Your task to perform on an android device: turn on wifi Image 0: 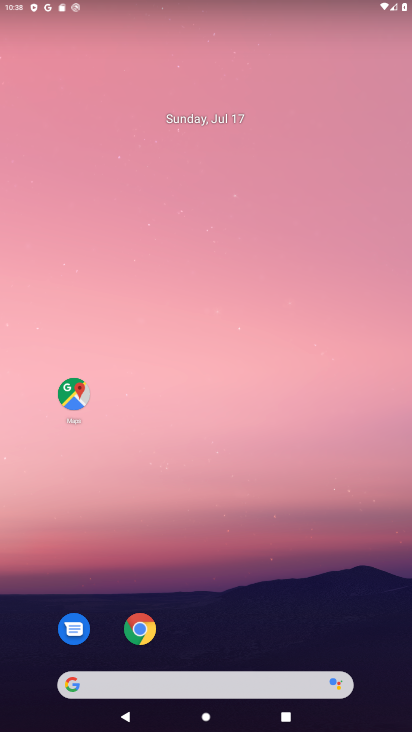
Step 0: drag from (235, 670) to (311, 193)
Your task to perform on an android device: turn on wifi Image 1: 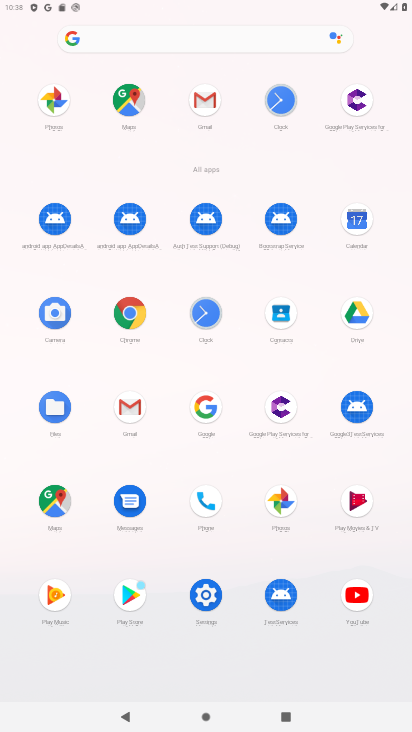
Step 1: click (195, 596)
Your task to perform on an android device: turn on wifi Image 2: 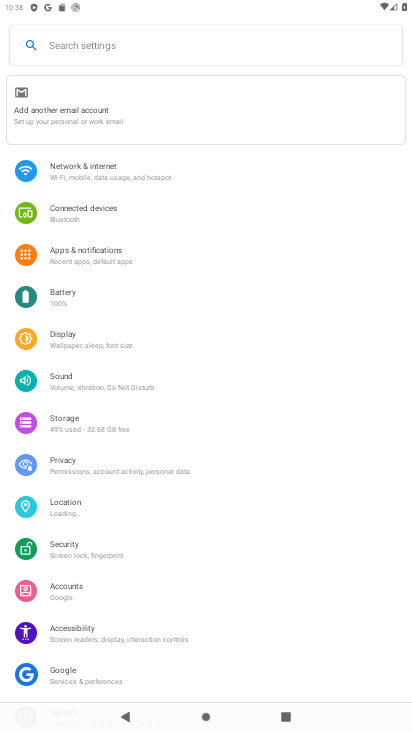
Step 2: click (86, 175)
Your task to perform on an android device: turn on wifi Image 3: 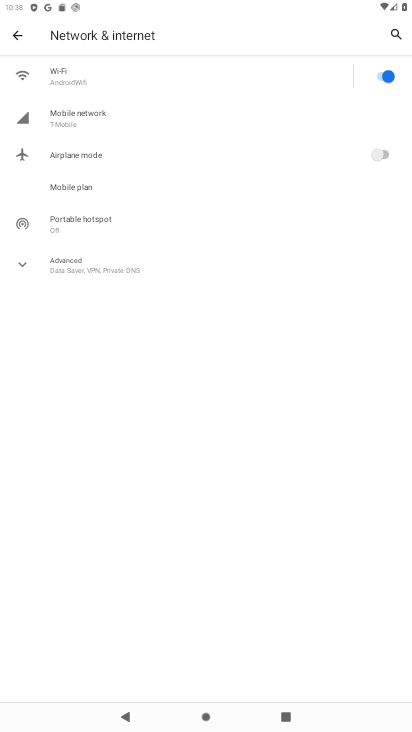
Step 3: task complete